Your task to perform on an android device: turn off translation in the chrome app Image 0: 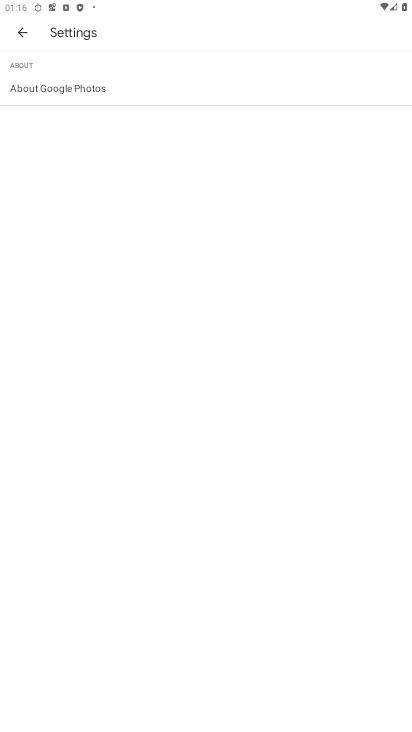
Step 0: press home button
Your task to perform on an android device: turn off translation in the chrome app Image 1: 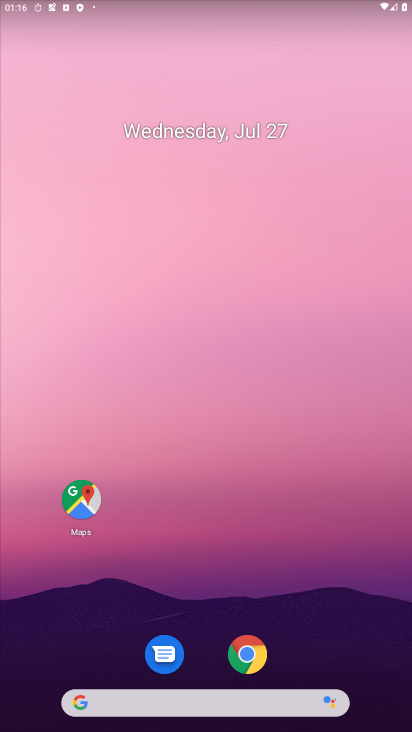
Step 1: drag from (221, 609) to (260, 212)
Your task to perform on an android device: turn off translation in the chrome app Image 2: 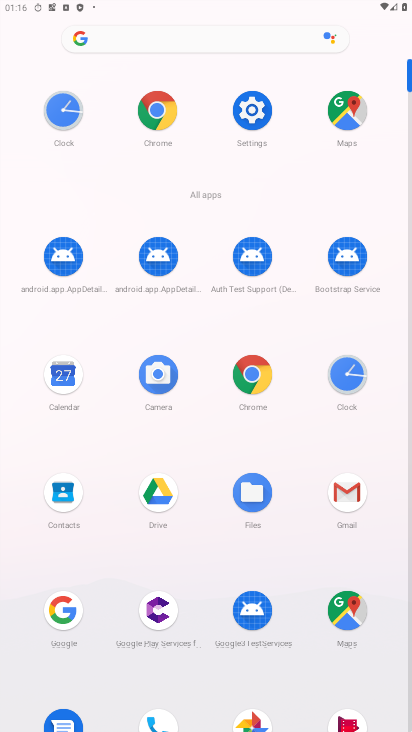
Step 2: click (317, 377)
Your task to perform on an android device: turn off translation in the chrome app Image 3: 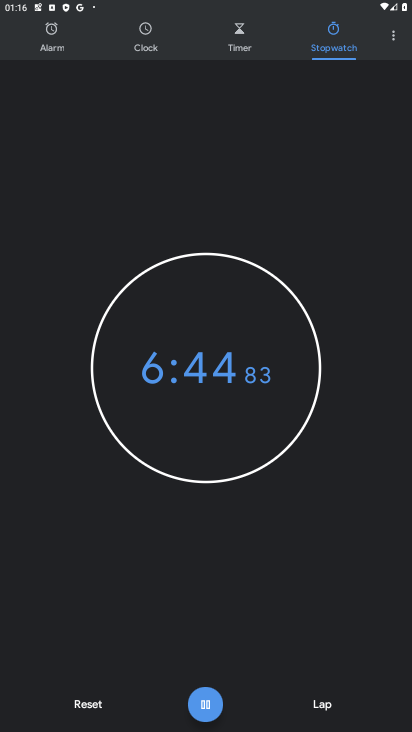
Step 3: press home button
Your task to perform on an android device: turn off translation in the chrome app Image 4: 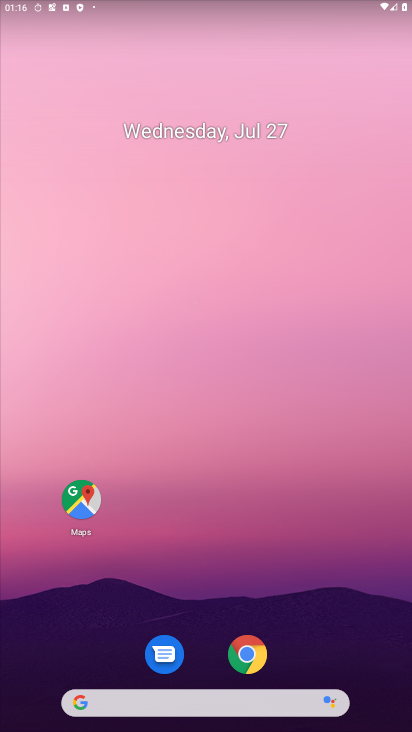
Step 4: drag from (254, 701) to (317, 7)
Your task to perform on an android device: turn off translation in the chrome app Image 5: 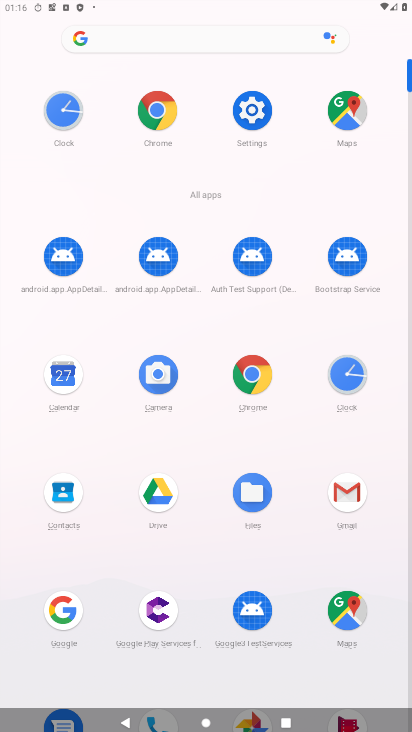
Step 5: click (265, 369)
Your task to perform on an android device: turn off translation in the chrome app Image 6: 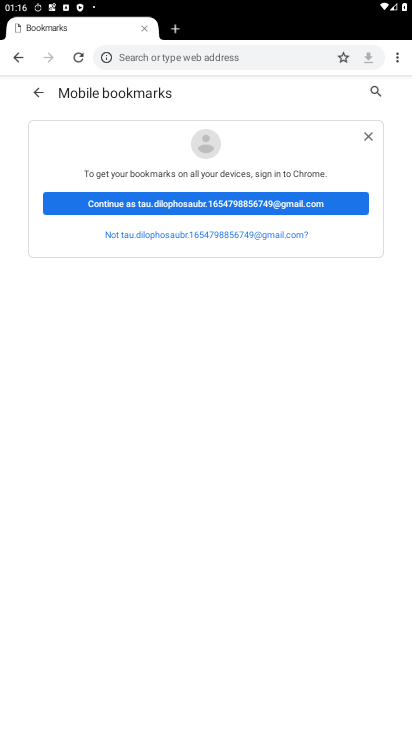
Step 6: click (391, 57)
Your task to perform on an android device: turn off translation in the chrome app Image 7: 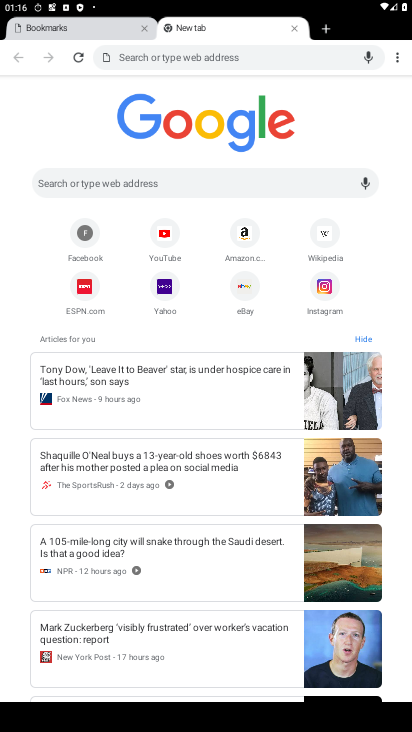
Step 7: drag from (399, 51) to (296, 266)
Your task to perform on an android device: turn off translation in the chrome app Image 8: 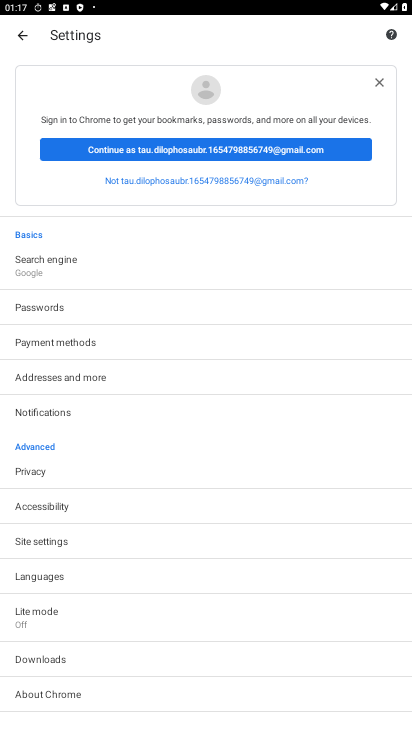
Step 8: click (127, 577)
Your task to perform on an android device: turn off translation in the chrome app Image 9: 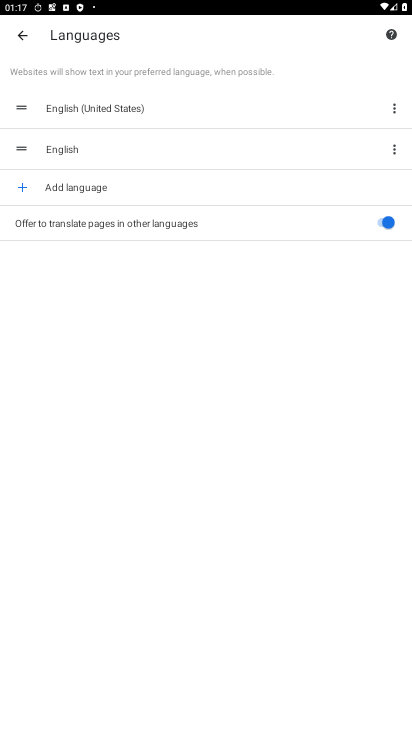
Step 9: click (386, 223)
Your task to perform on an android device: turn off translation in the chrome app Image 10: 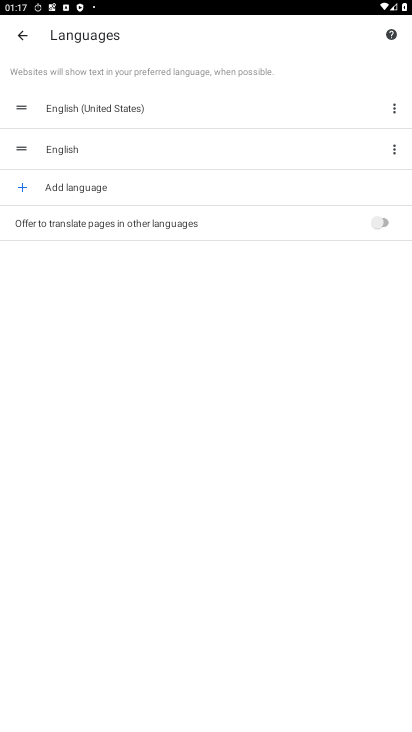
Step 10: task complete